Your task to perform on an android device: turn on improve location accuracy Image 0: 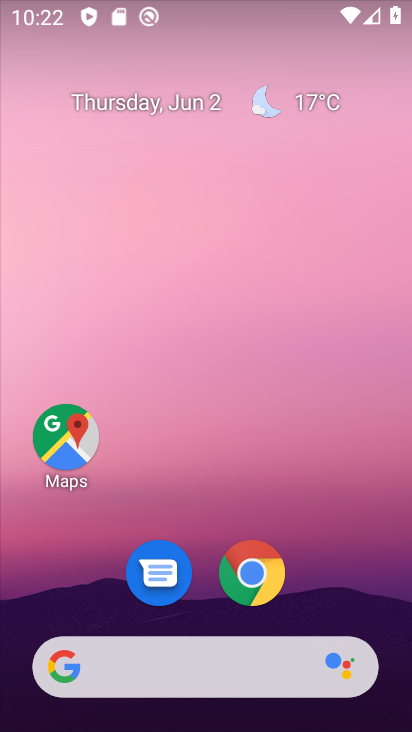
Step 0: task complete